Your task to perform on an android device: Go to sound settings Image 0: 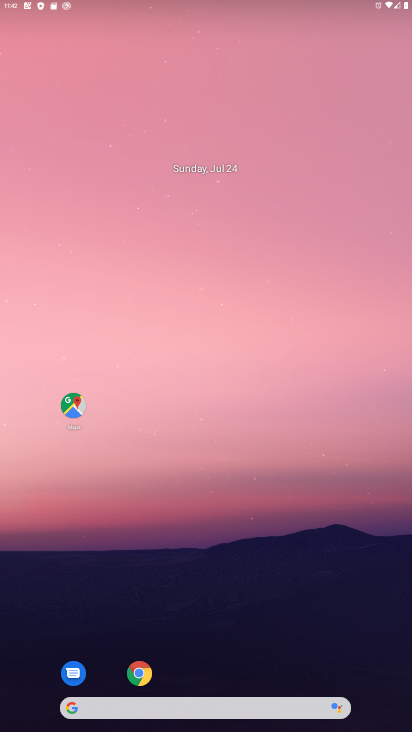
Step 0: drag from (321, 636) to (342, 64)
Your task to perform on an android device: Go to sound settings Image 1: 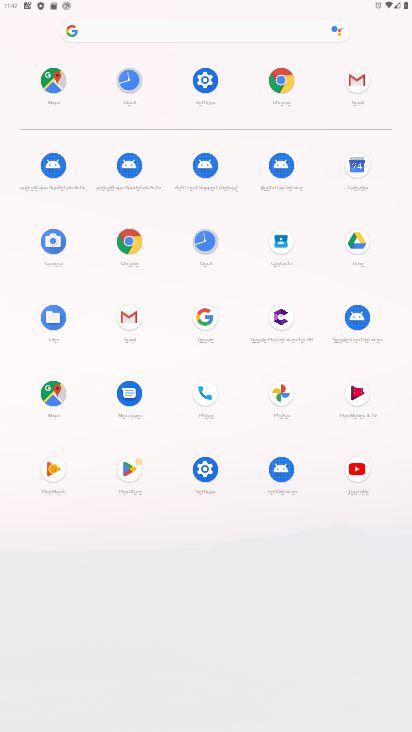
Step 1: click (215, 83)
Your task to perform on an android device: Go to sound settings Image 2: 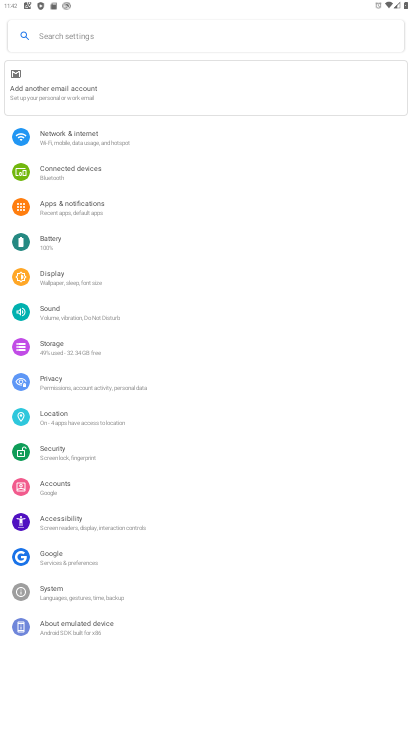
Step 2: click (84, 311)
Your task to perform on an android device: Go to sound settings Image 3: 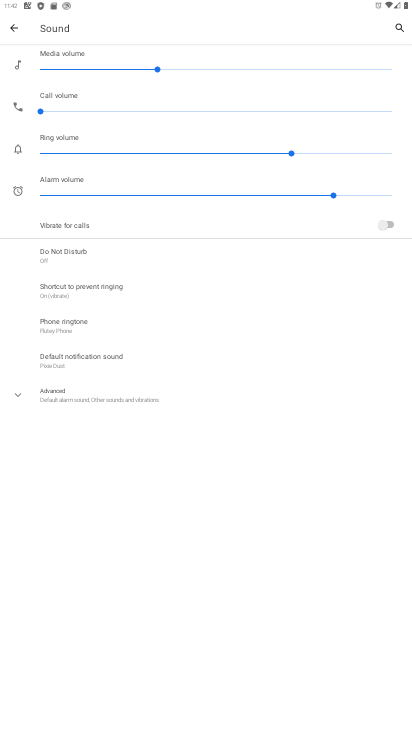
Step 3: task complete